Your task to perform on an android device: change your default location settings in chrome Image 0: 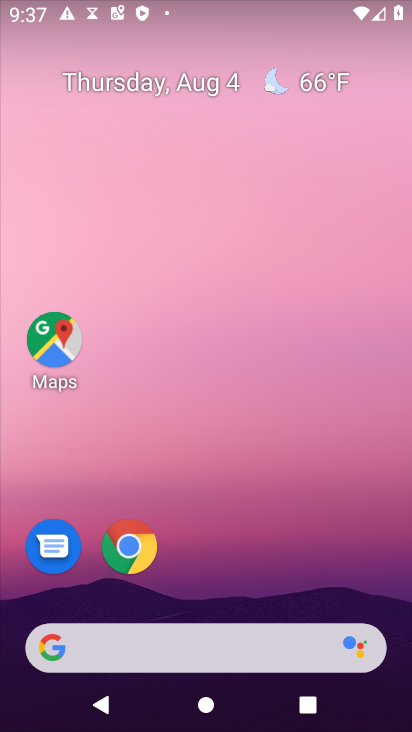
Step 0: press home button
Your task to perform on an android device: change your default location settings in chrome Image 1: 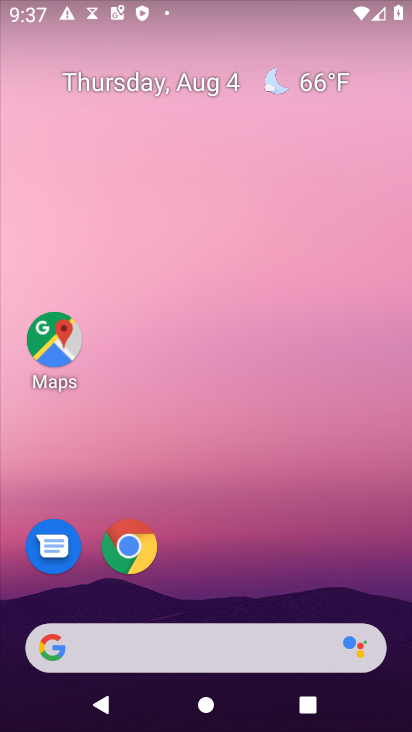
Step 1: drag from (202, 600) to (228, 72)
Your task to perform on an android device: change your default location settings in chrome Image 2: 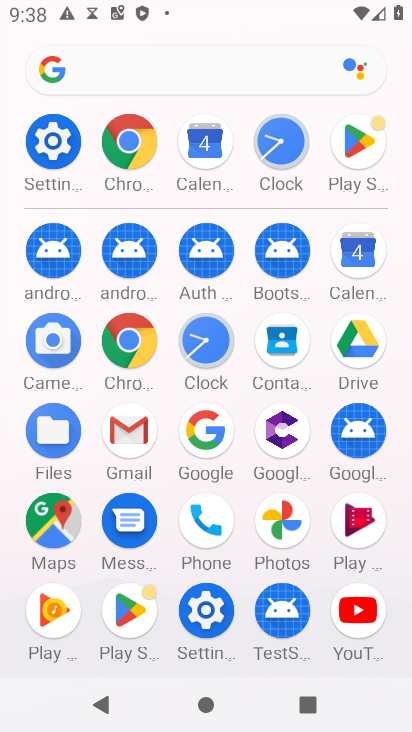
Step 2: click (120, 149)
Your task to perform on an android device: change your default location settings in chrome Image 3: 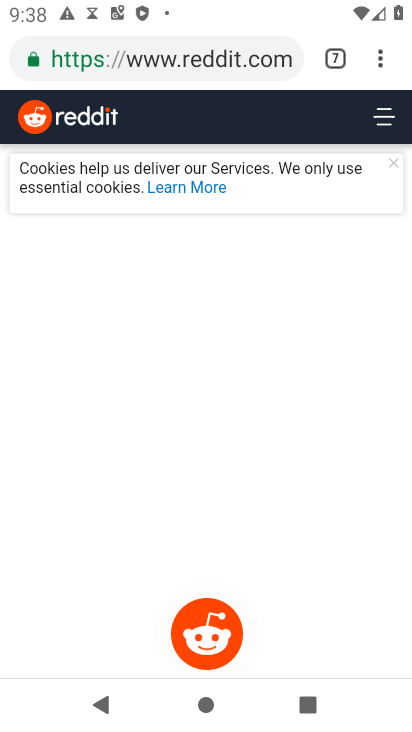
Step 3: drag from (379, 55) to (199, 579)
Your task to perform on an android device: change your default location settings in chrome Image 4: 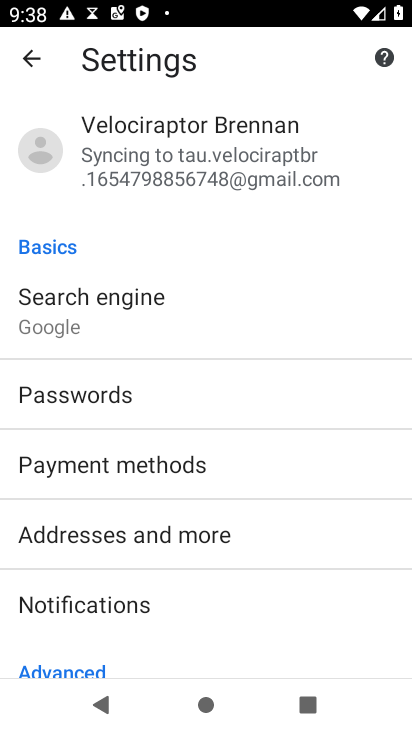
Step 4: drag from (359, 583) to (354, 138)
Your task to perform on an android device: change your default location settings in chrome Image 5: 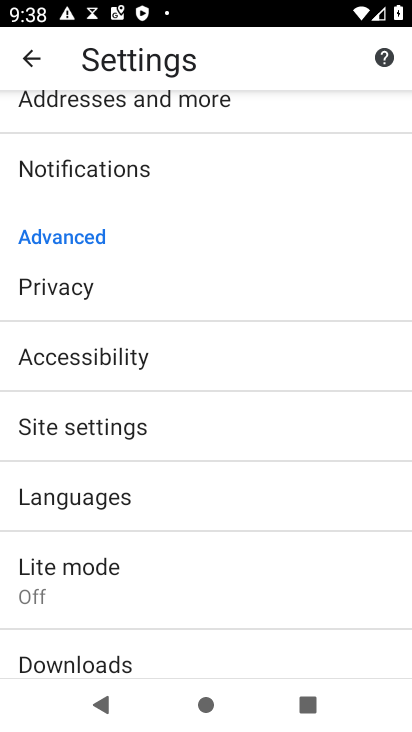
Step 5: click (79, 425)
Your task to perform on an android device: change your default location settings in chrome Image 6: 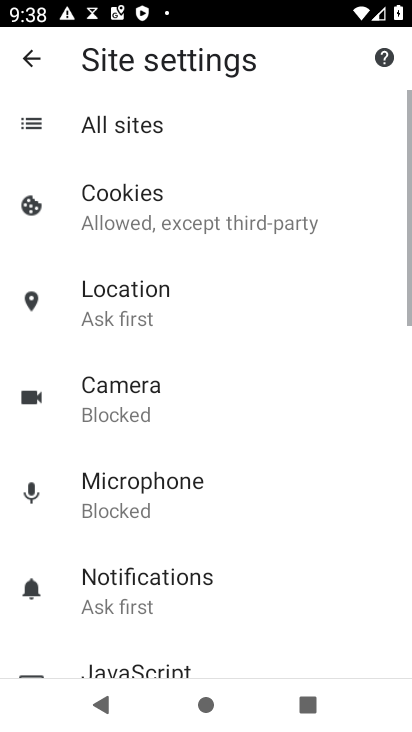
Step 6: click (138, 297)
Your task to perform on an android device: change your default location settings in chrome Image 7: 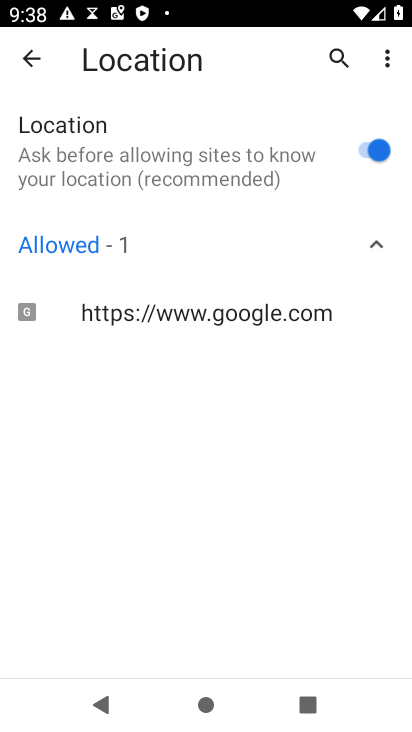
Step 7: click (376, 153)
Your task to perform on an android device: change your default location settings in chrome Image 8: 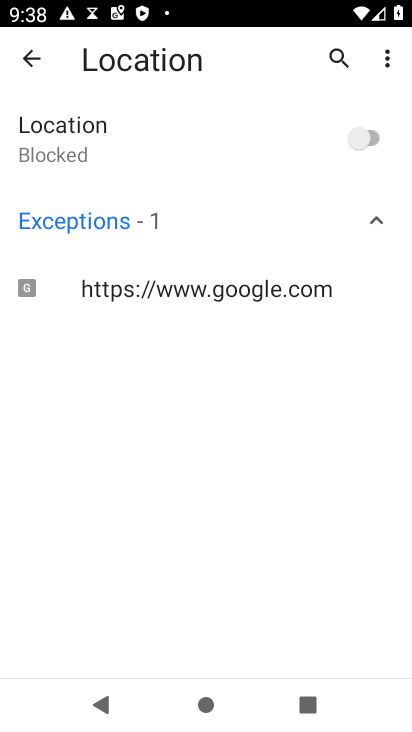
Step 8: task complete